Your task to perform on an android device: What's the weather today? Image 0: 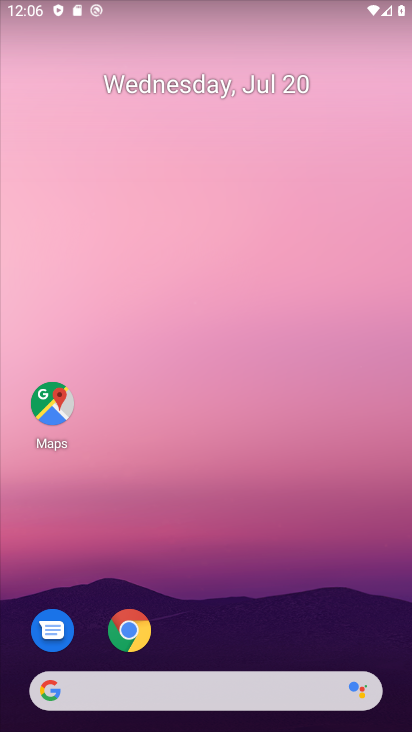
Step 0: click (143, 688)
Your task to perform on an android device: What's the weather today? Image 1: 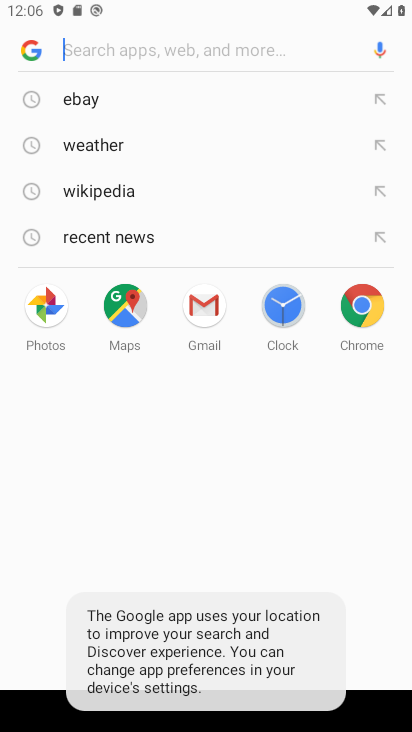
Step 1: click (107, 148)
Your task to perform on an android device: What's the weather today? Image 2: 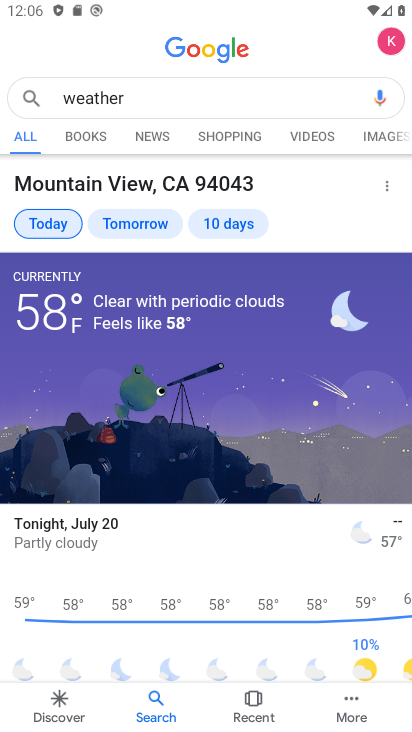
Step 2: task complete